Your task to perform on an android device: Show me popular videos on Youtube Image 0: 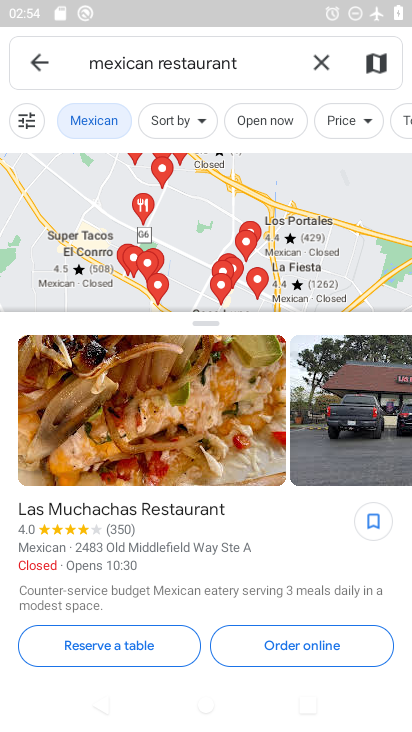
Step 0: press home button
Your task to perform on an android device: Show me popular videos on Youtube Image 1: 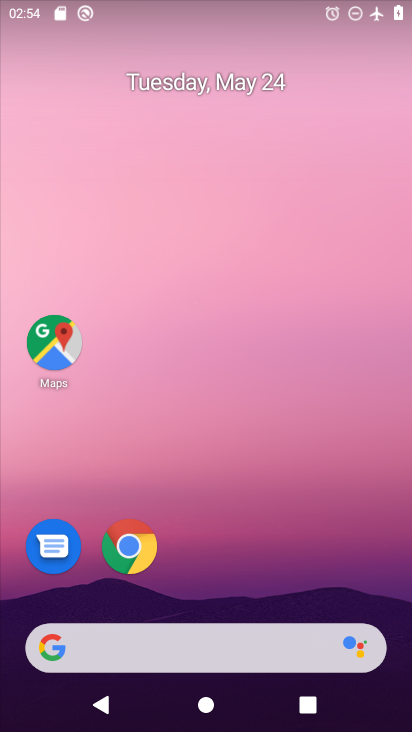
Step 1: drag from (251, 655) to (257, 81)
Your task to perform on an android device: Show me popular videos on Youtube Image 2: 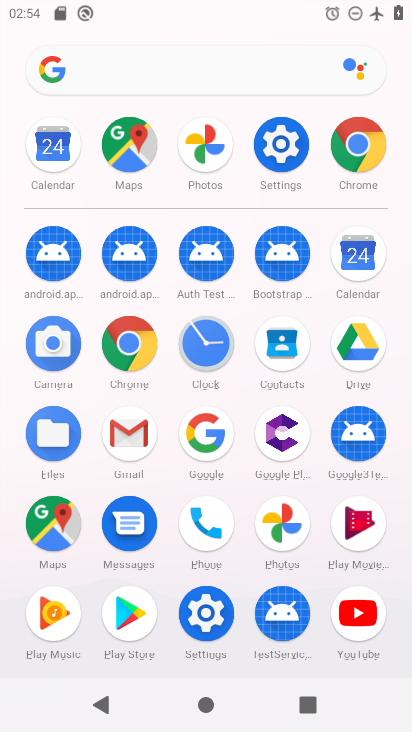
Step 2: click (355, 611)
Your task to perform on an android device: Show me popular videos on Youtube Image 3: 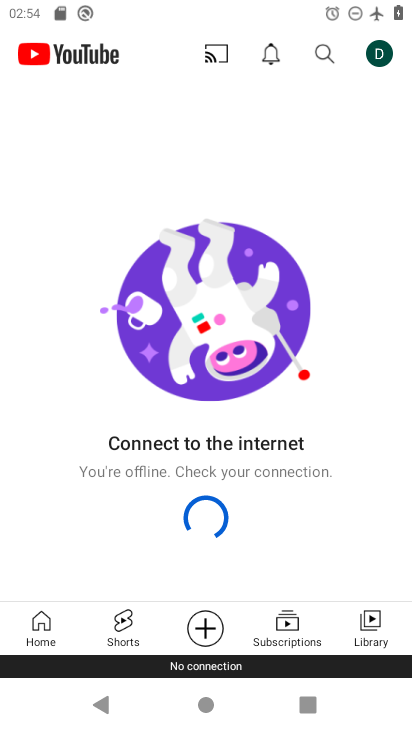
Step 3: click (57, 621)
Your task to perform on an android device: Show me popular videos on Youtube Image 4: 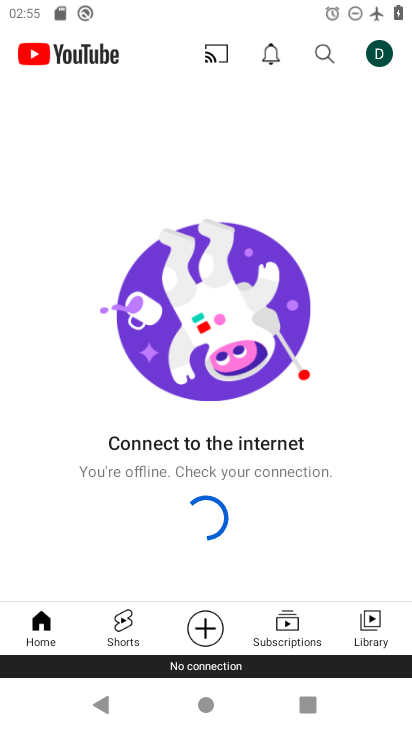
Step 4: task complete